Your task to perform on an android device: Open location settings Image 0: 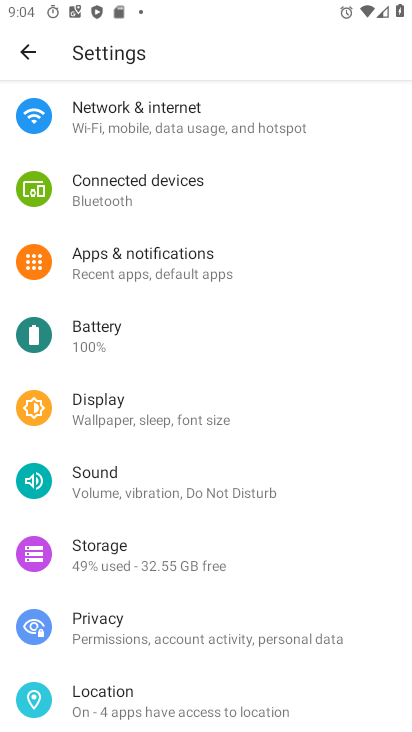
Step 0: drag from (216, 631) to (192, 235)
Your task to perform on an android device: Open location settings Image 1: 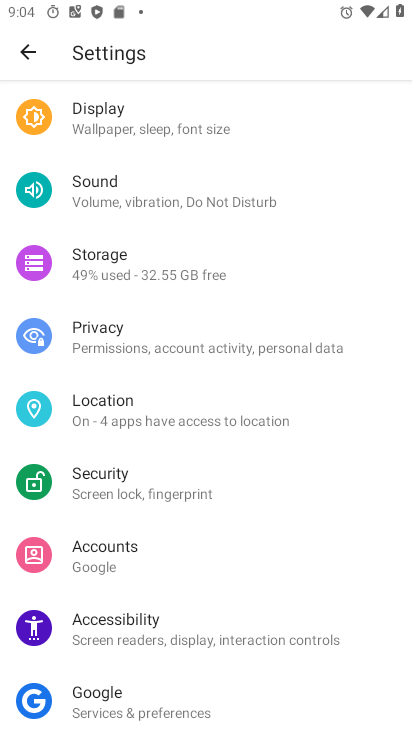
Step 1: click (139, 402)
Your task to perform on an android device: Open location settings Image 2: 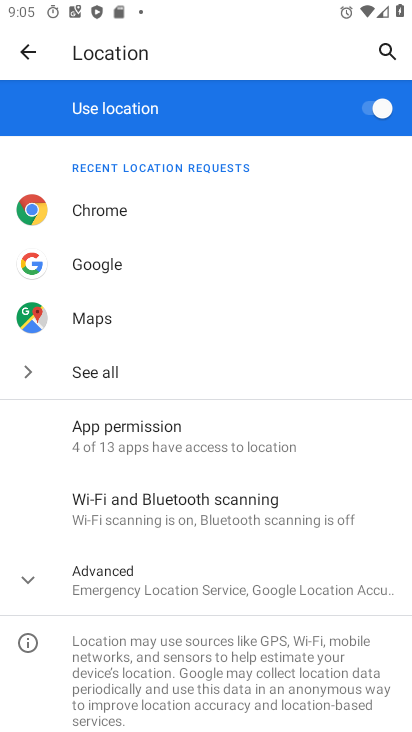
Step 2: task complete